Your task to perform on an android device: Search for vegetarian restaurants on Maps Image 0: 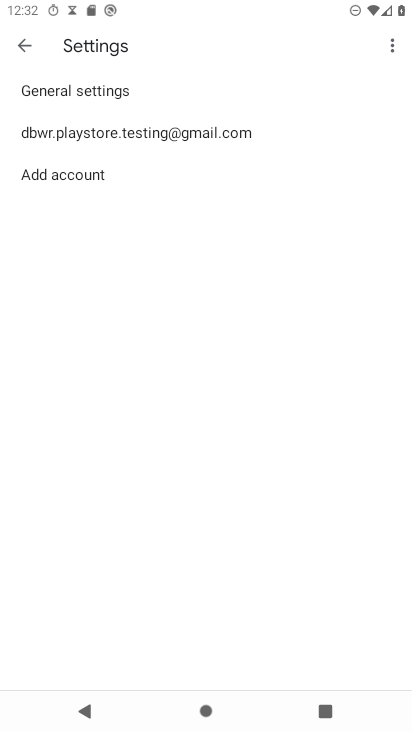
Step 0: press home button
Your task to perform on an android device: Search for vegetarian restaurants on Maps Image 1: 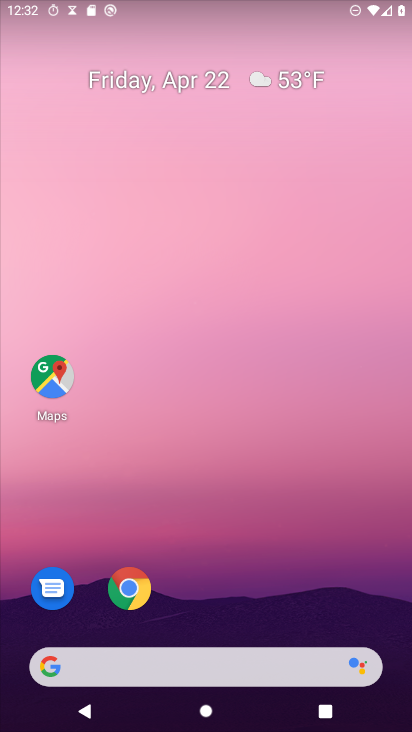
Step 1: drag from (278, 597) to (351, 150)
Your task to perform on an android device: Search for vegetarian restaurants on Maps Image 2: 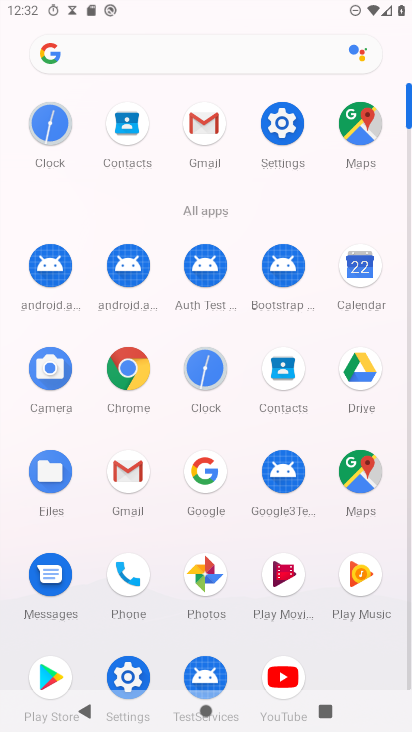
Step 2: click (356, 130)
Your task to perform on an android device: Search for vegetarian restaurants on Maps Image 3: 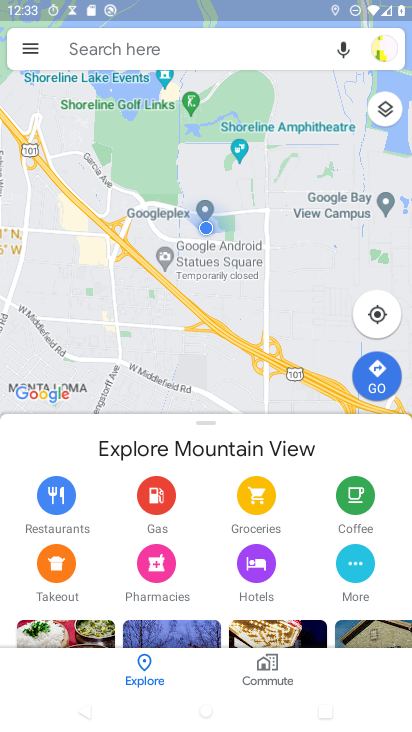
Step 3: click (104, 47)
Your task to perform on an android device: Search for vegetarian restaurants on Maps Image 4: 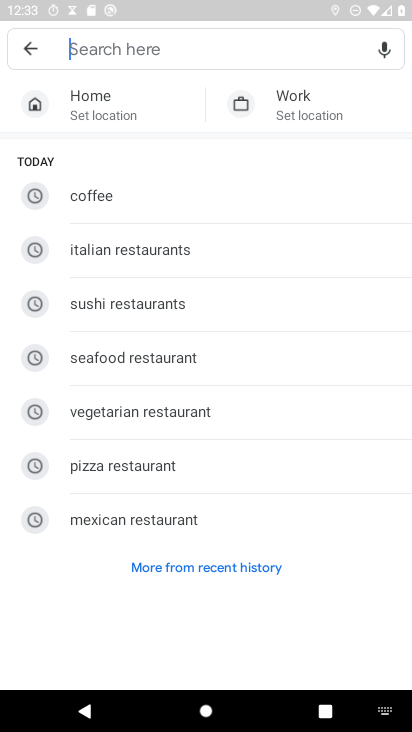
Step 4: type "vegetarian restaurants"
Your task to perform on an android device: Search for vegetarian restaurants on Maps Image 5: 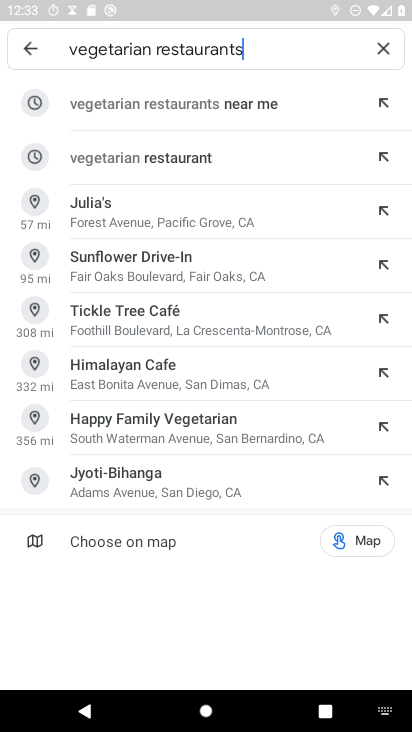
Step 5: click (167, 163)
Your task to perform on an android device: Search for vegetarian restaurants on Maps Image 6: 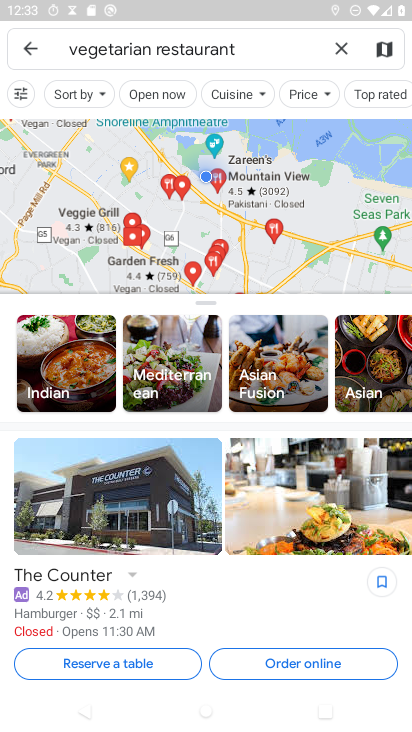
Step 6: task complete